Your task to perform on an android device: What's the weather? Image 0: 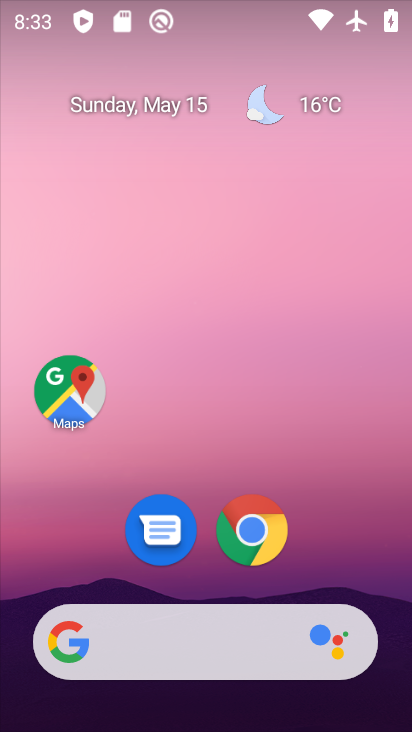
Step 0: click (257, 108)
Your task to perform on an android device: What's the weather? Image 1: 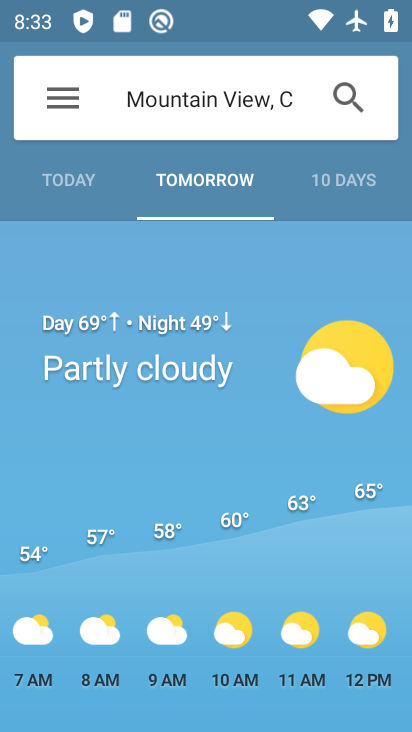
Step 1: task complete